Your task to perform on an android device: see creations saved in the google photos Image 0: 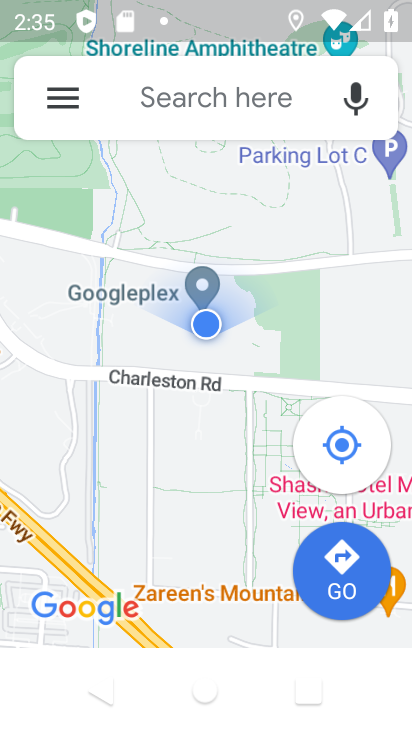
Step 0: press home button
Your task to perform on an android device: see creations saved in the google photos Image 1: 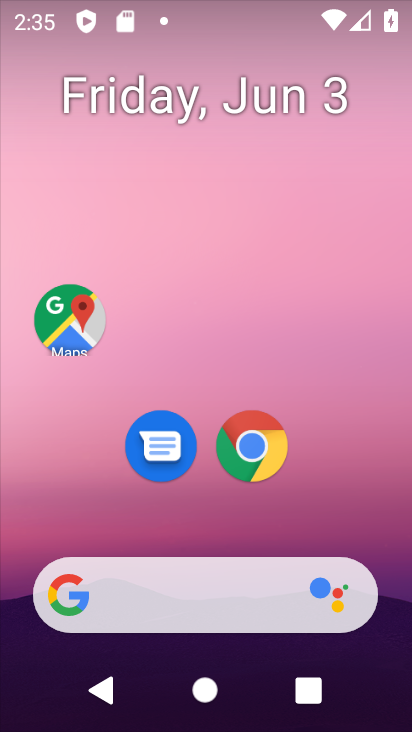
Step 1: drag from (343, 525) to (238, 67)
Your task to perform on an android device: see creations saved in the google photos Image 2: 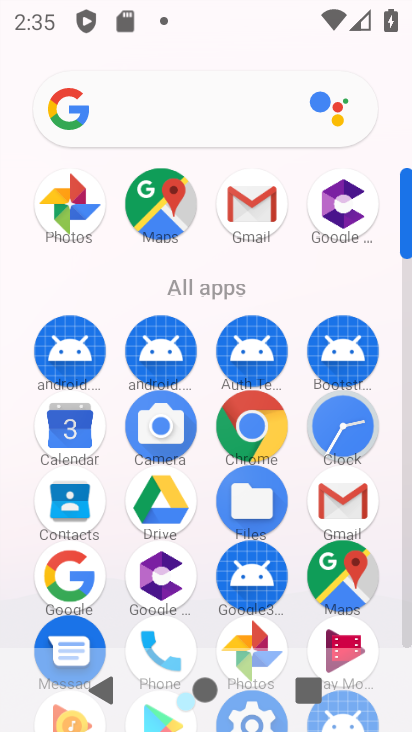
Step 2: click (69, 236)
Your task to perform on an android device: see creations saved in the google photos Image 3: 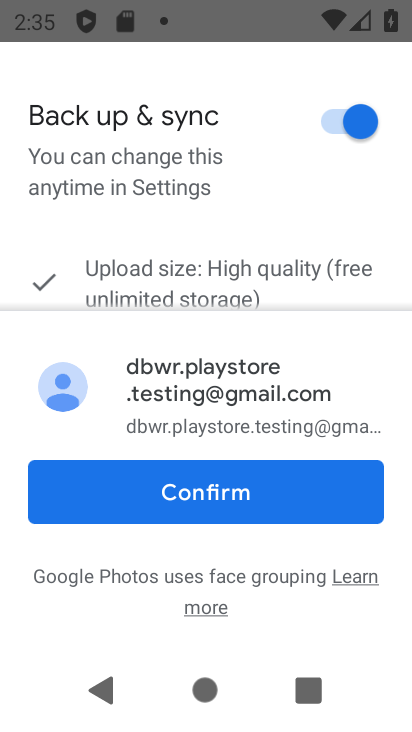
Step 3: task complete